Your task to perform on an android device: What's on my calendar today? Image 0: 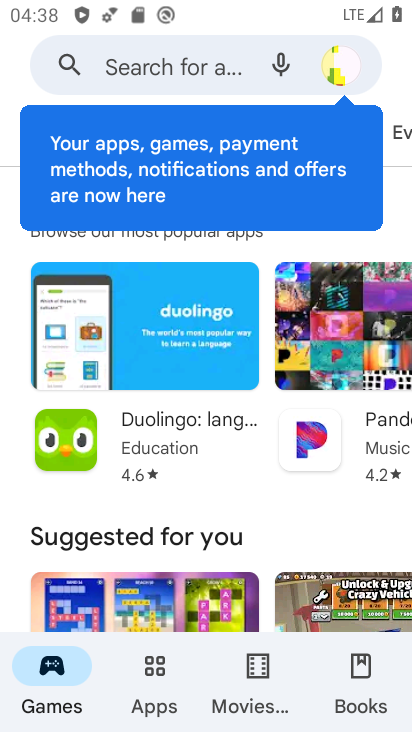
Step 0: press home button
Your task to perform on an android device: What's on my calendar today? Image 1: 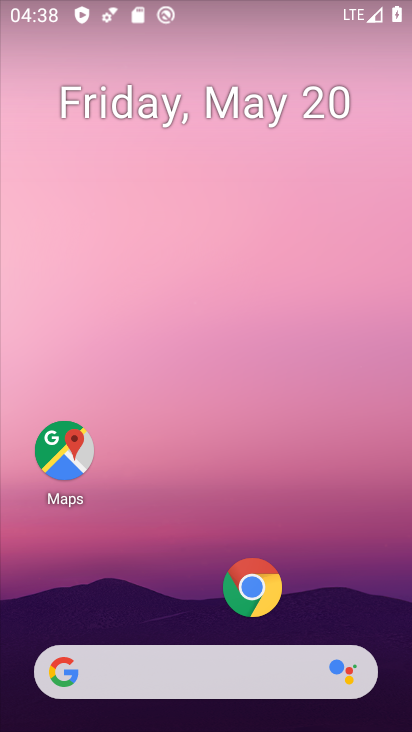
Step 1: click (142, 120)
Your task to perform on an android device: What's on my calendar today? Image 2: 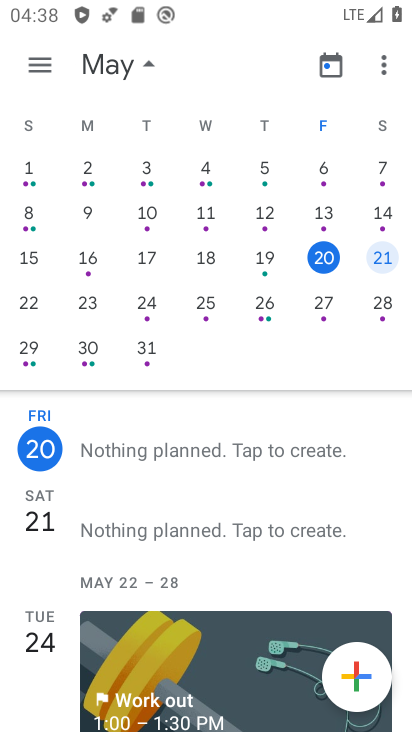
Step 2: task complete